Your task to perform on an android device: Go to calendar. Show me events next week Image 0: 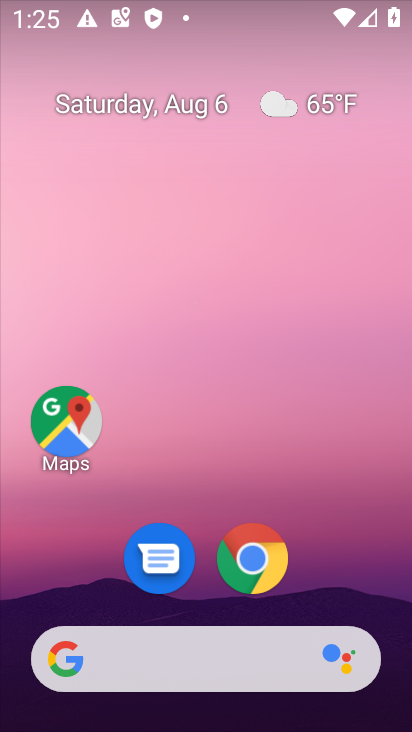
Step 0: drag from (236, 631) to (137, 42)
Your task to perform on an android device: Go to calendar. Show me events next week Image 1: 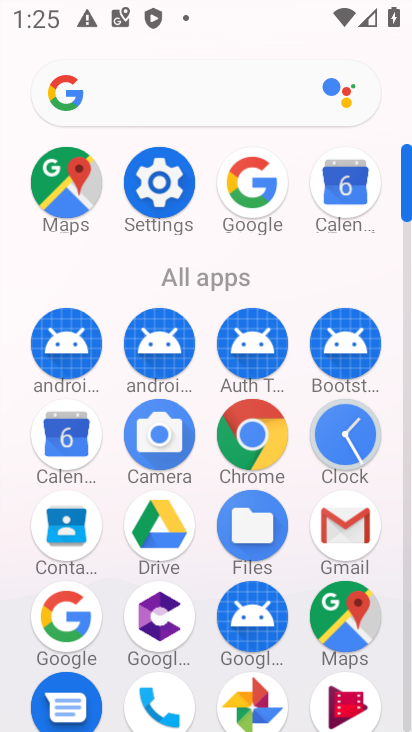
Step 1: click (60, 431)
Your task to perform on an android device: Go to calendar. Show me events next week Image 2: 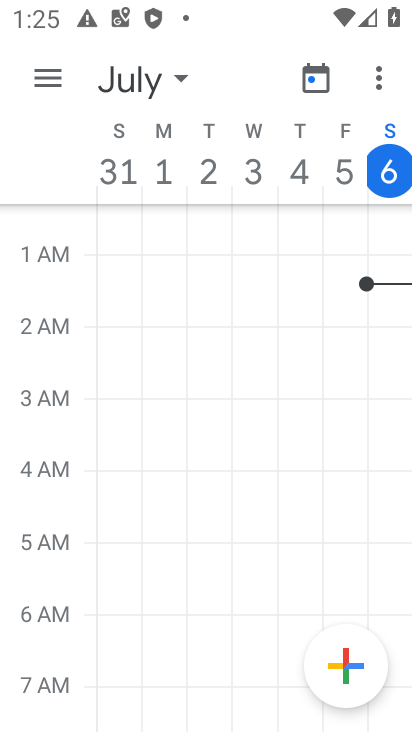
Step 2: task complete